Your task to perform on an android device: find which apps use the phone's location Image 0: 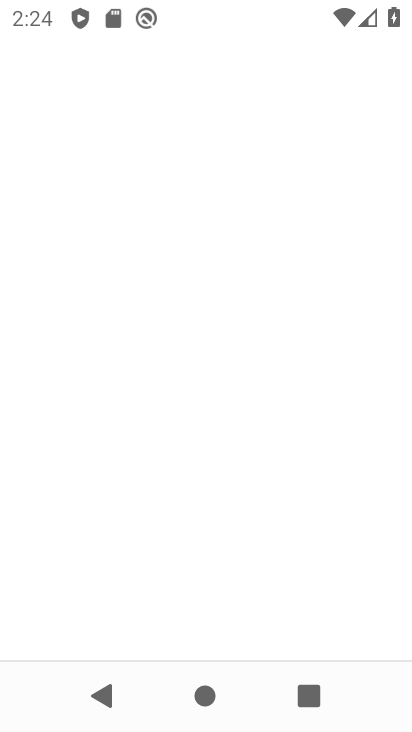
Step 0: drag from (171, 542) to (214, 24)
Your task to perform on an android device: find which apps use the phone's location Image 1: 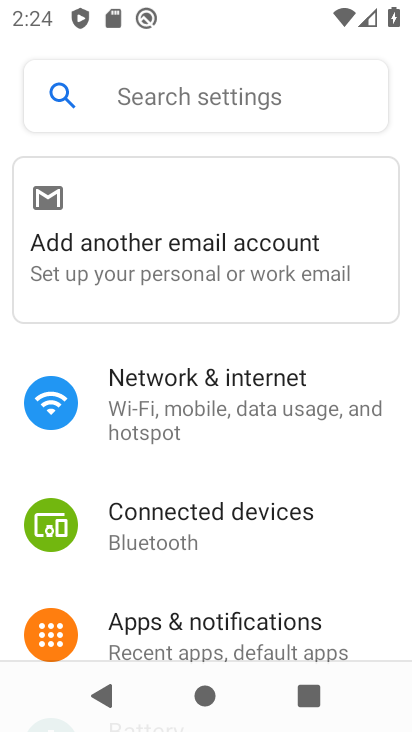
Step 1: press back button
Your task to perform on an android device: find which apps use the phone's location Image 2: 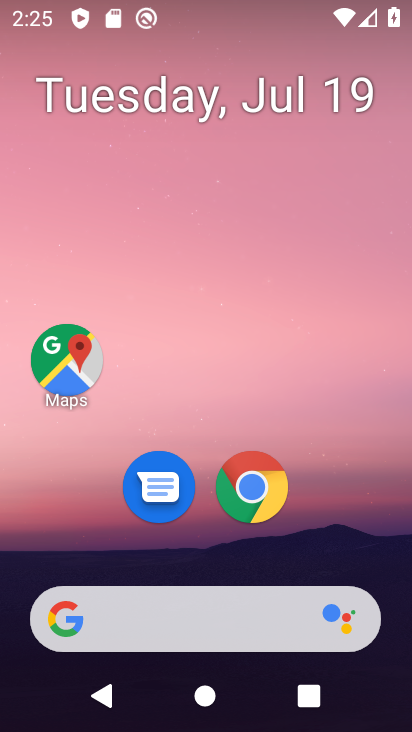
Step 2: drag from (112, 574) to (238, 110)
Your task to perform on an android device: find which apps use the phone's location Image 3: 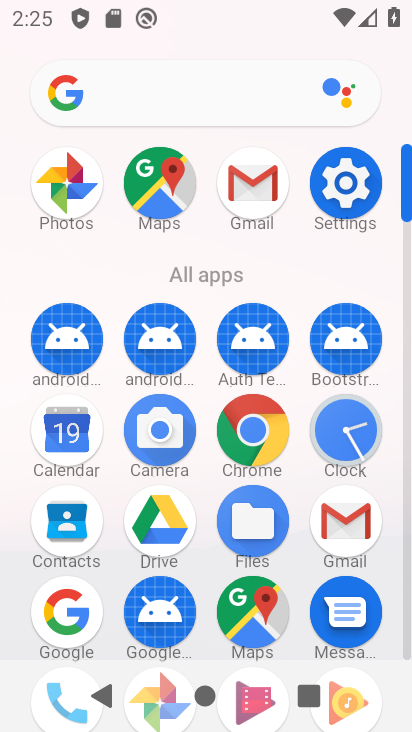
Step 3: click (343, 191)
Your task to perform on an android device: find which apps use the phone's location Image 4: 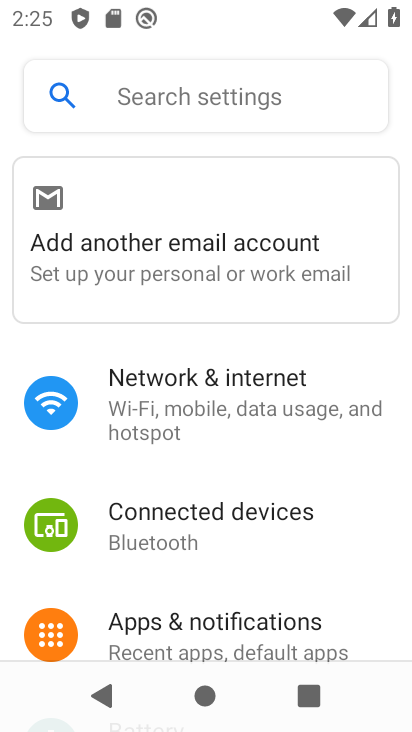
Step 4: drag from (152, 623) to (258, 144)
Your task to perform on an android device: find which apps use the phone's location Image 5: 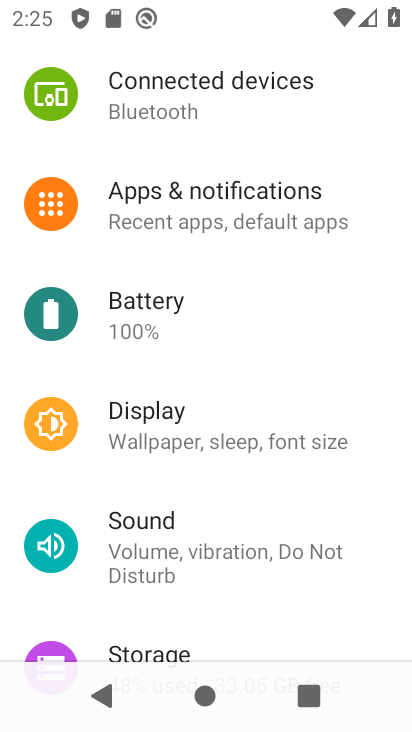
Step 5: drag from (146, 632) to (237, 35)
Your task to perform on an android device: find which apps use the phone's location Image 6: 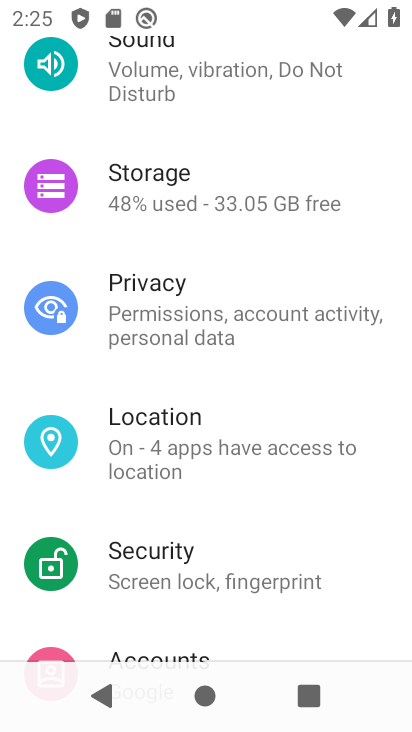
Step 6: click (176, 458)
Your task to perform on an android device: find which apps use the phone's location Image 7: 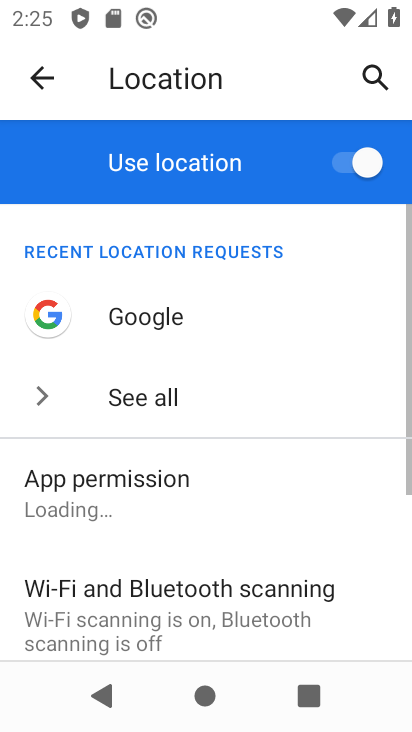
Step 7: drag from (183, 515) to (304, 136)
Your task to perform on an android device: find which apps use the phone's location Image 8: 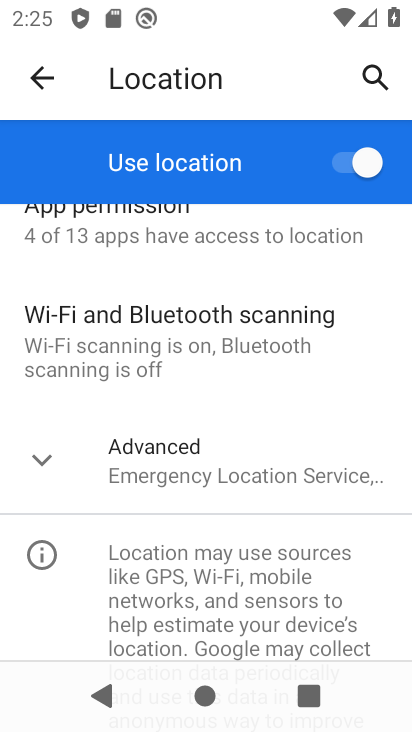
Step 8: click (168, 238)
Your task to perform on an android device: find which apps use the phone's location Image 9: 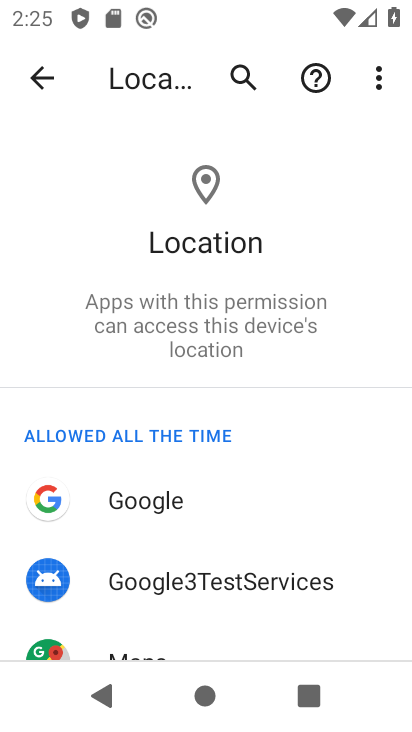
Step 9: task complete